Your task to perform on an android device: empty trash in google photos Image 0: 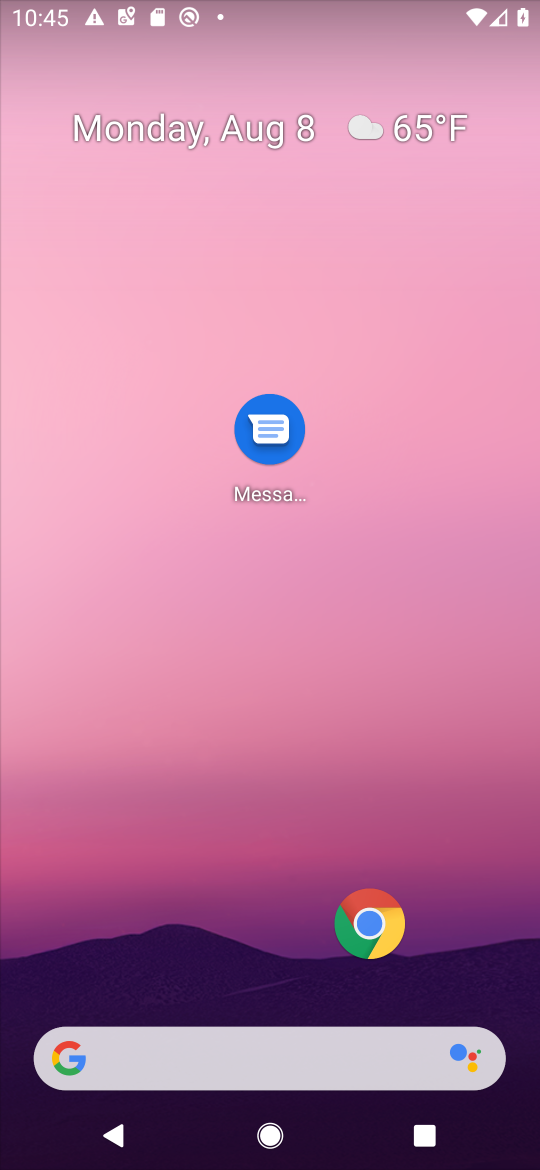
Step 0: drag from (50, 1139) to (490, 252)
Your task to perform on an android device: empty trash in google photos Image 1: 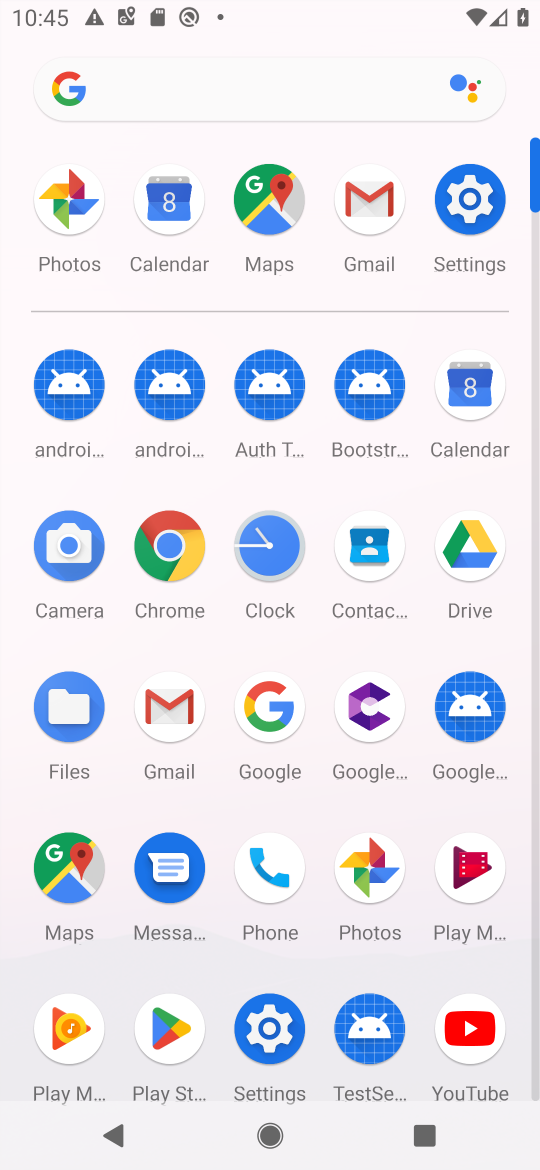
Step 1: click (378, 876)
Your task to perform on an android device: empty trash in google photos Image 2: 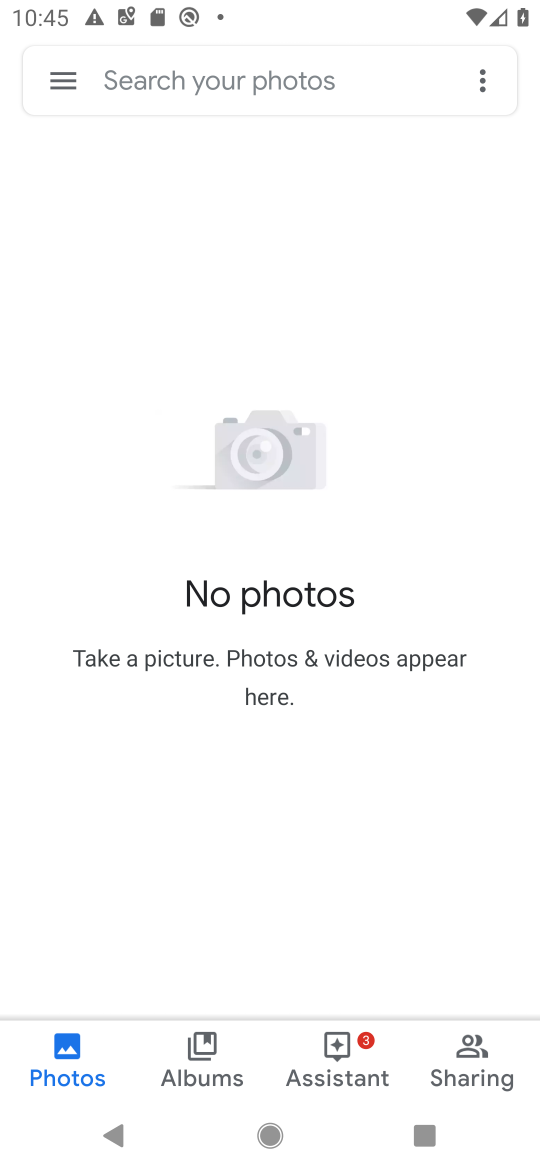
Step 2: click (63, 86)
Your task to perform on an android device: empty trash in google photos Image 3: 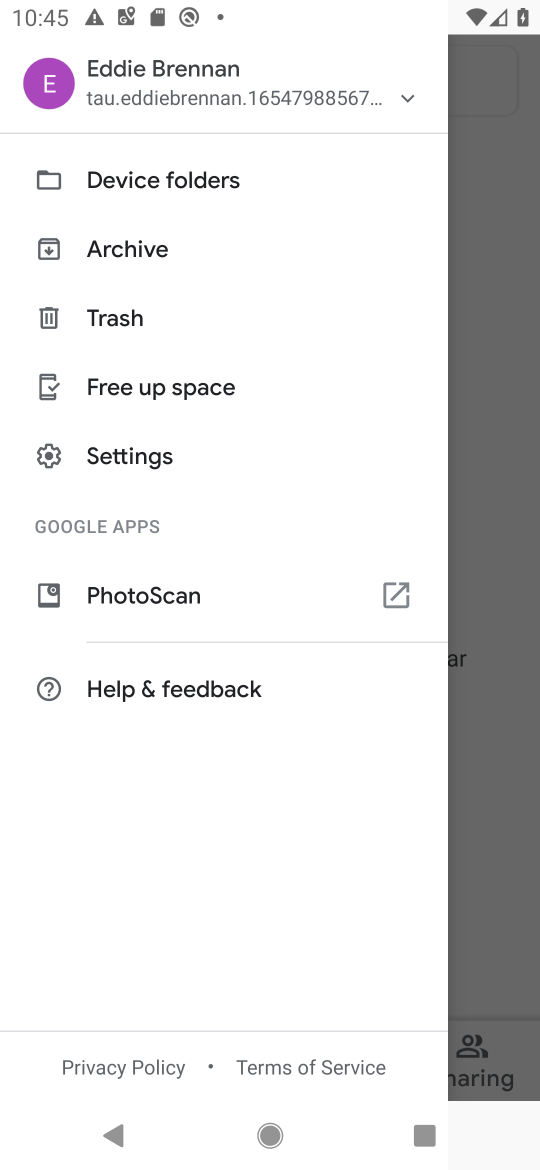
Step 3: click (125, 442)
Your task to perform on an android device: empty trash in google photos Image 4: 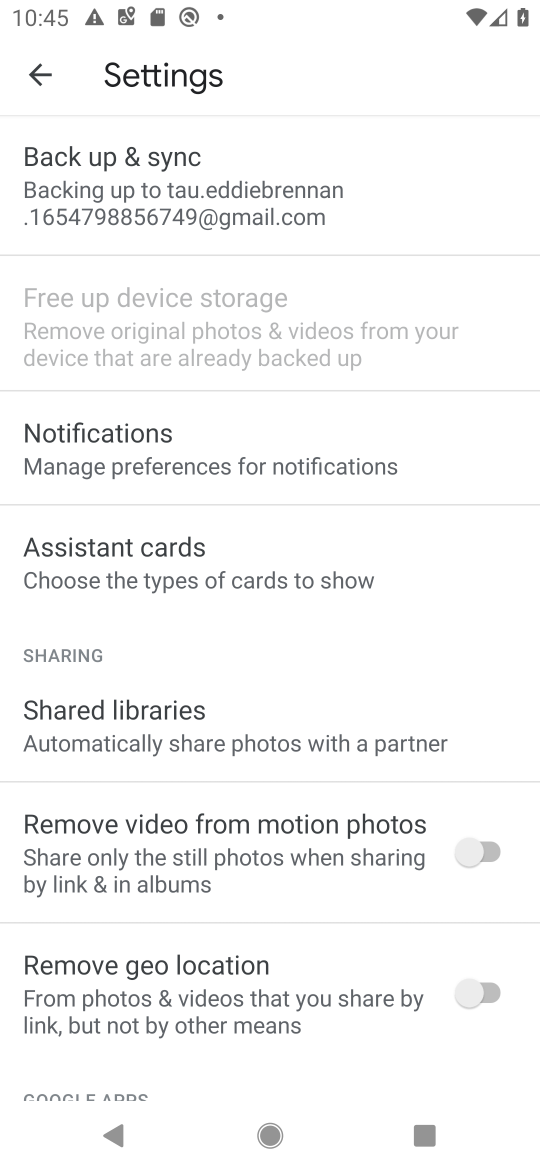
Step 4: click (40, 72)
Your task to perform on an android device: empty trash in google photos Image 5: 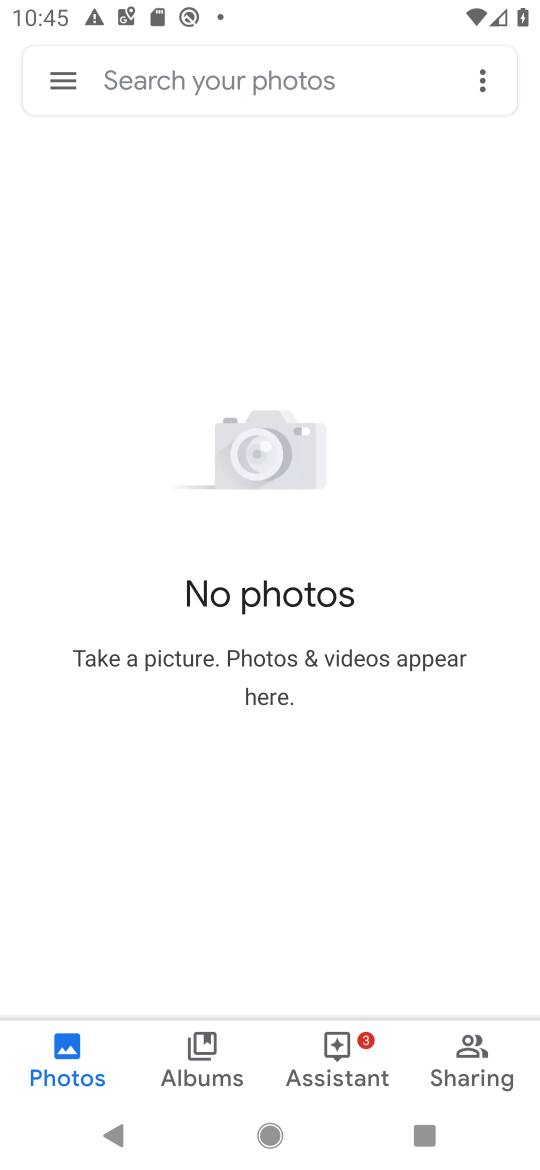
Step 5: click (72, 79)
Your task to perform on an android device: empty trash in google photos Image 6: 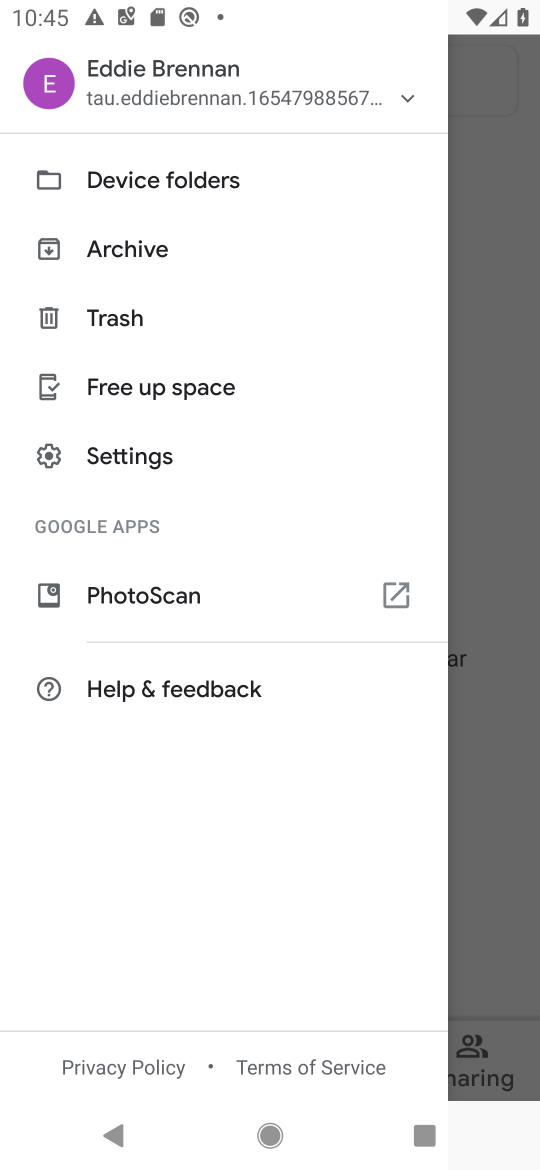
Step 6: click (122, 299)
Your task to perform on an android device: empty trash in google photos Image 7: 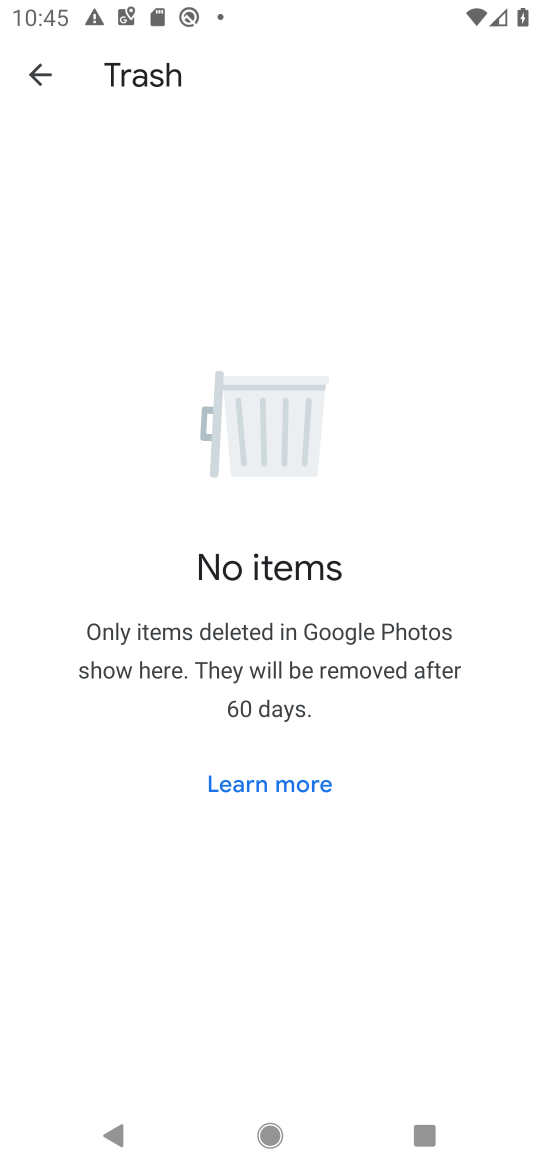
Step 7: task complete